Your task to perform on an android device: move an email to a new category in the gmail app Image 0: 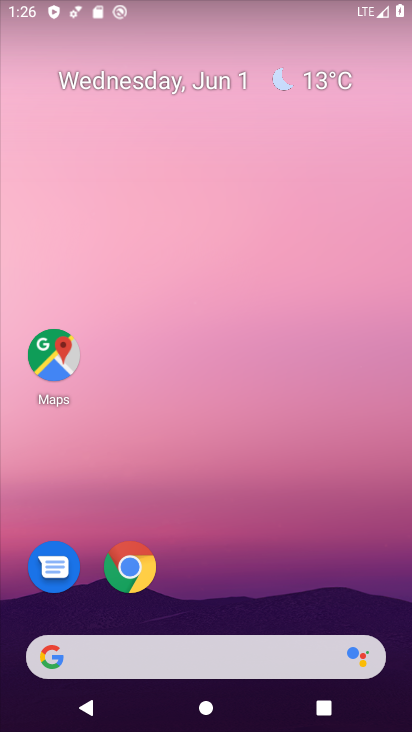
Step 0: drag from (306, 566) to (291, 94)
Your task to perform on an android device: move an email to a new category in the gmail app Image 1: 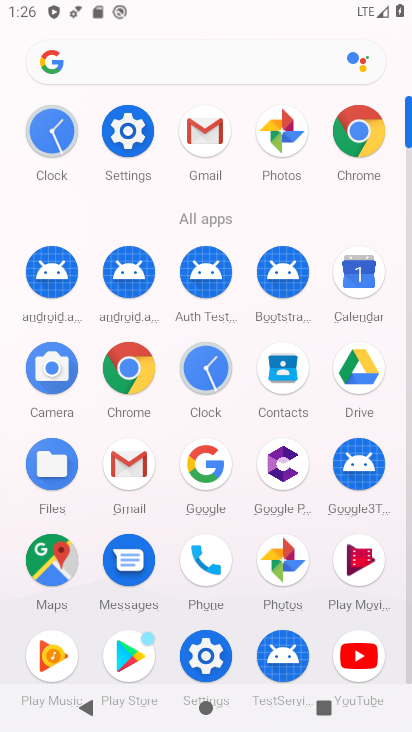
Step 1: click (214, 137)
Your task to perform on an android device: move an email to a new category in the gmail app Image 2: 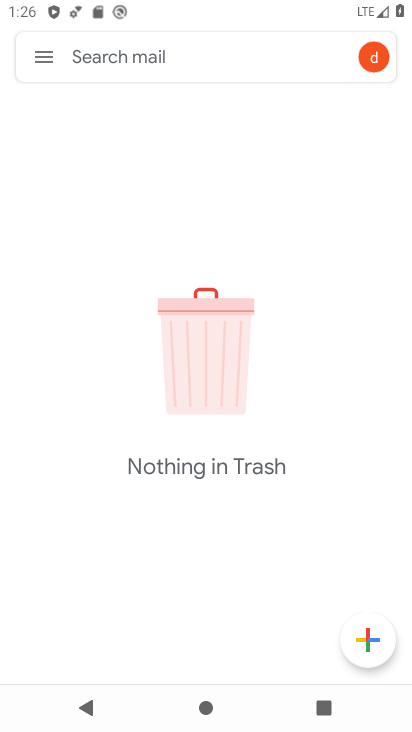
Step 2: click (38, 61)
Your task to perform on an android device: move an email to a new category in the gmail app Image 3: 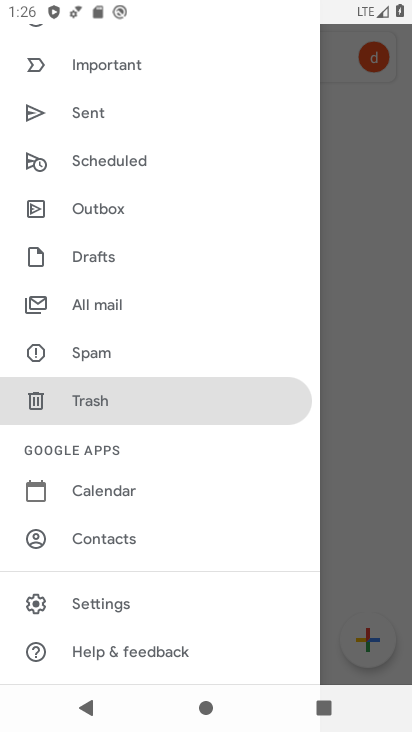
Step 3: click (102, 298)
Your task to perform on an android device: move an email to a new category in the gmail app Image 4: 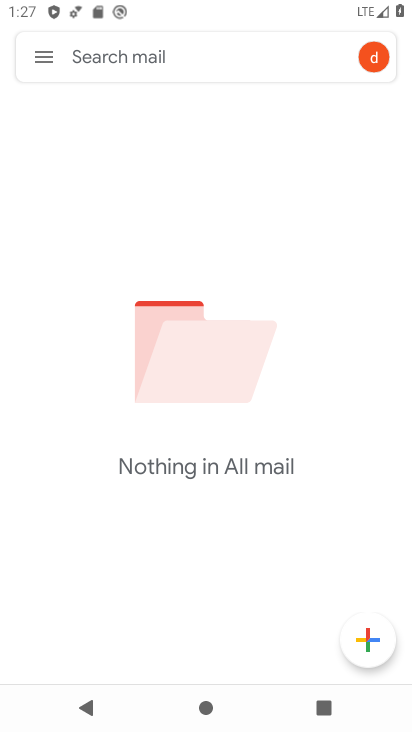
Step 4: task complete